Your task to perform on an android device: allow notifications from all sites in the chrome app Image 0: 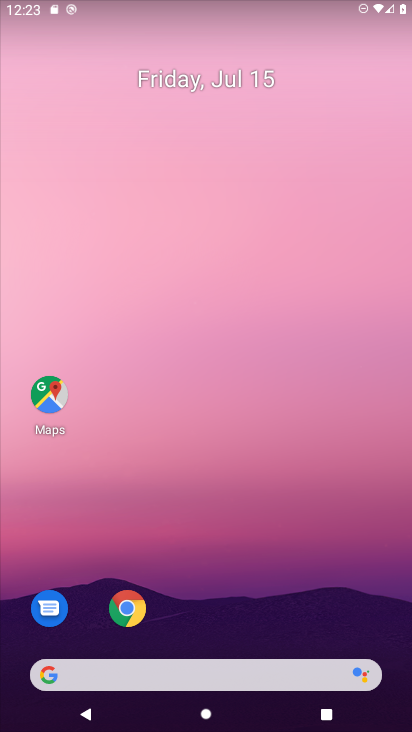
Step 0: drag from (221, 606) to (300, 10)
Your task to perform on an android device: allow notifications from all sites in the chrome app Image 1: 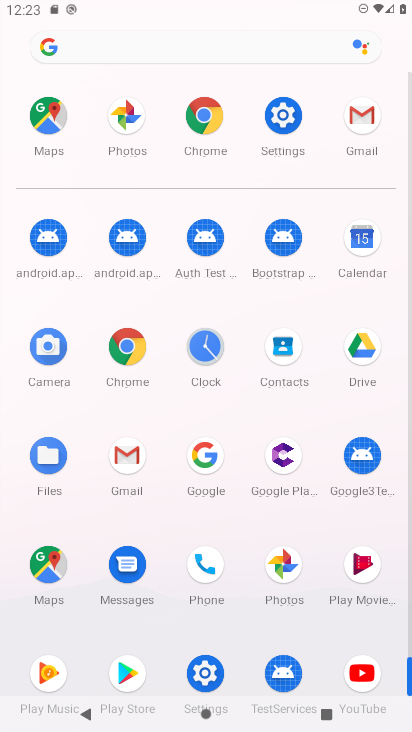
Step 1: click (125, 333)
Your task to perform on an android device: allow notifications from all sites in the chrome app Image 2: 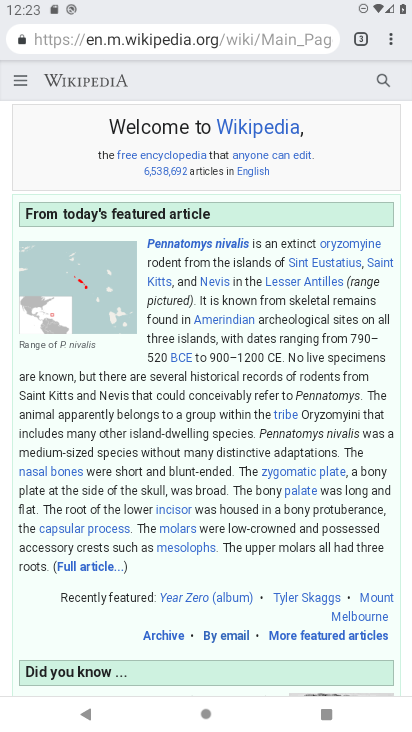
Step 2: drag from (392, 36) to (295, 468)
Your task to perform on an android device: allow notifications from all sites in the chrome app Image 3: 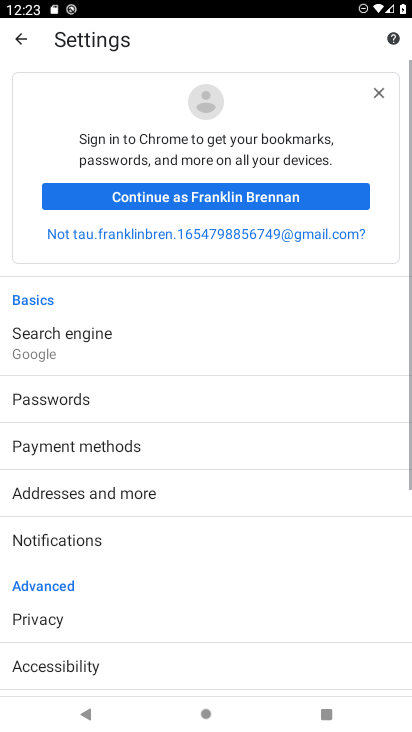
Step 3: drag from (260, 467) to (280, 42)
Your task to perform on an android device: allow notifications from all sites in the chrome app Image 4: 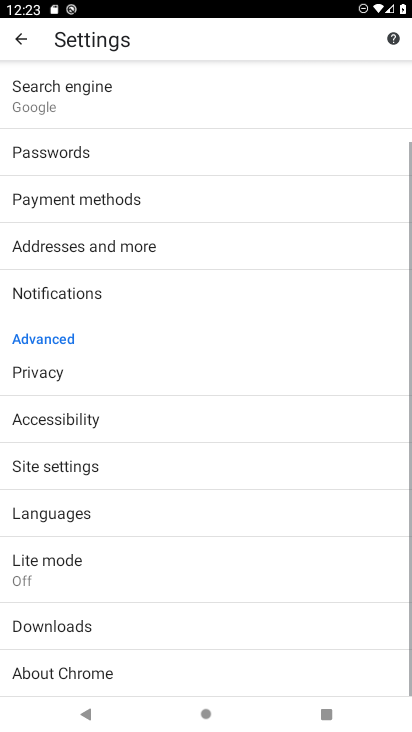
Step 4: click (95, 473)
Your task to perform on an android device: allow notifications from all sites in the chrome app Image 5: 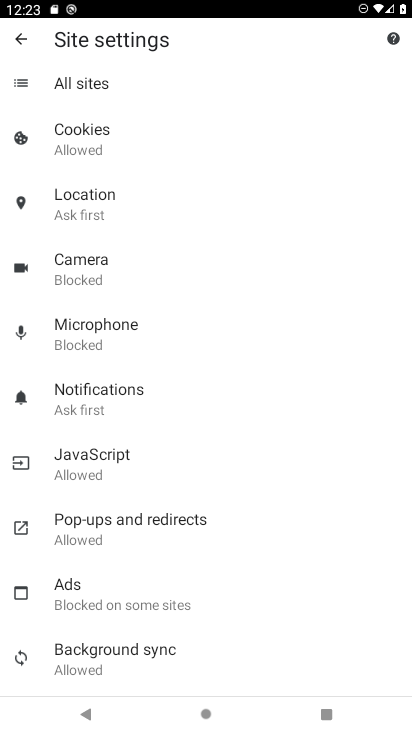
Step 5: click (139, 402)
Your task to perform on an android device: allow notifications from all sites in the chrome app Image 6: 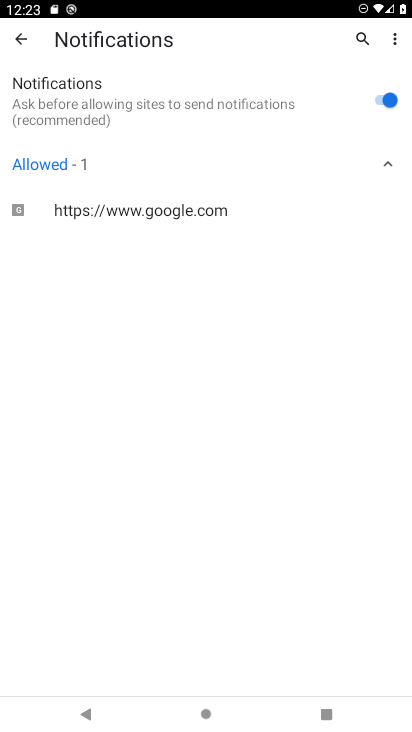
Step 6: task complete